Your task to perform on an android device: read, delete, or share a saved page in the chrome app Image 0: 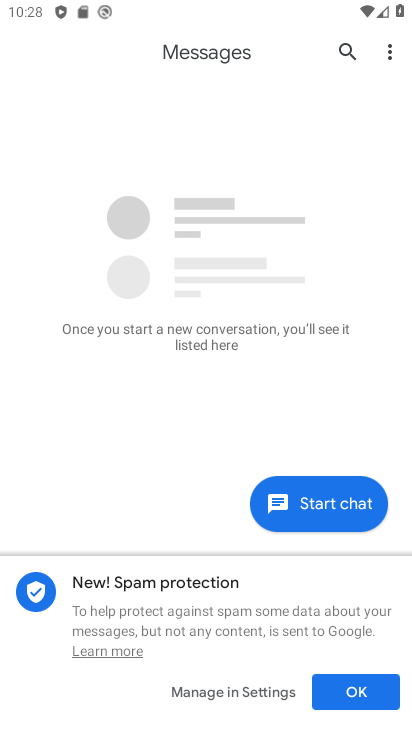
Step 0: press home button
Your task to perform on an android device: read, delete, or share a saved page in the chrome app Image 1: 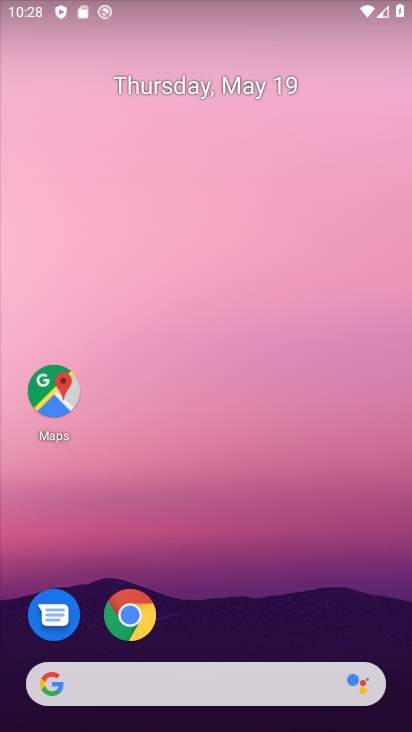
Step 1: click (148, 611)
Your task to perform on an android device: read, delete, or share a saved page in the chrome app Image 2: 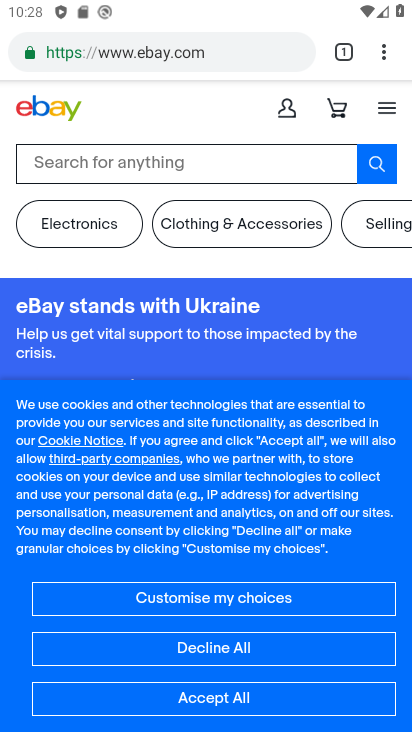
Step 2: click (384, 53)
Your task to perform on an android device: read, delete, or share a saved page in the chrome app Image 3: 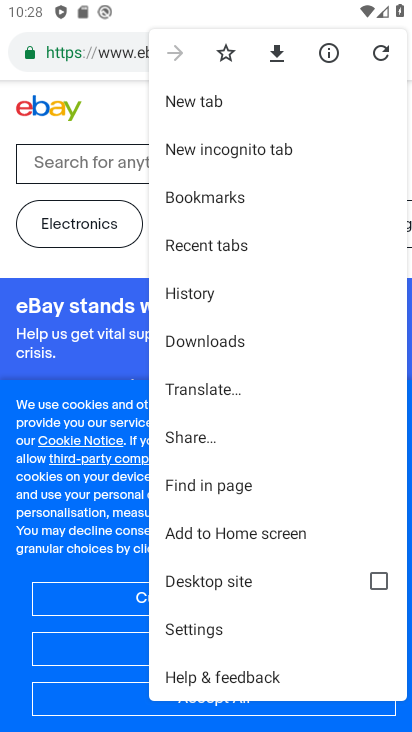
Step 3: click (177, 348)
Your task to perform on an android device: read, delete, or share a saved page in the chrome app Image 4: 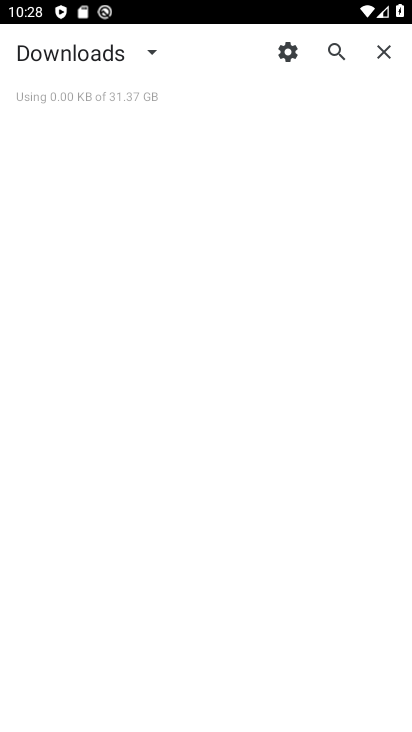
Step 4: click (149, 57)
Your task to perform on an android device: read, delete, or share a saved page in the chrome app Image 5: 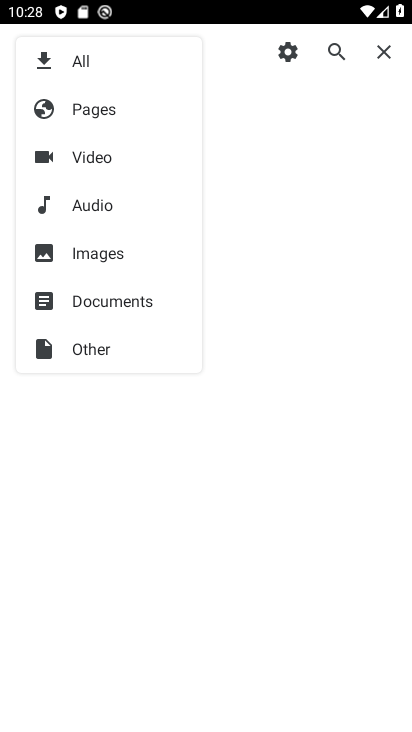
Step 5: click (104, 111)
Your task to perform on an android device: read, delete, or share a saved page in the chrome app Image 6: 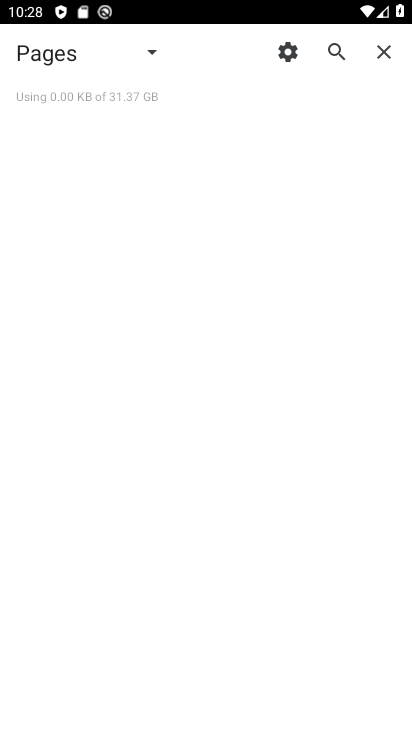
Step 6: task complete